Your task to perform on an android device: open device folders in google photos Image 0: 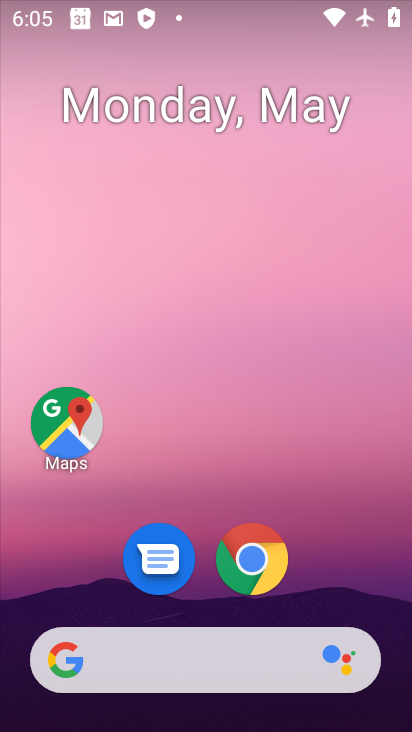
Step 0: drag from (314, 534) to (268, 144)
Your task to perform on an android device: open device folders in google photos Image 1: 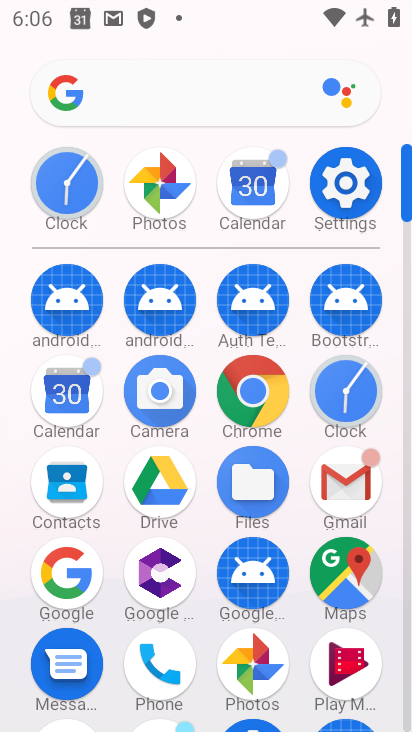
Step 1: click (161, 179)
Your task to perform on an android device: open device folders in google photos Image 2: 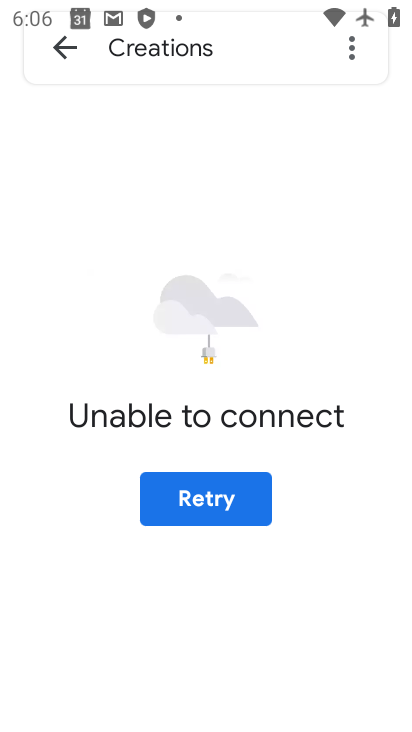
Step 2: click (61, 50)
Your task to perform on an android device: open device folders in google photos Image 3: 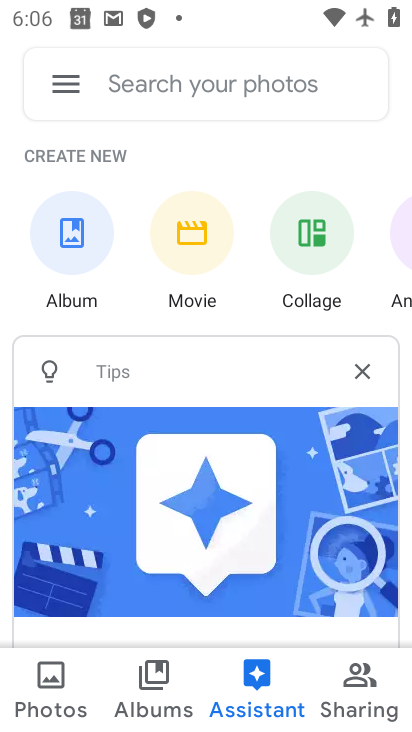
Step 3: click (74, 70)
Your task to perform on an android device: open device folders in google photos Image 4: 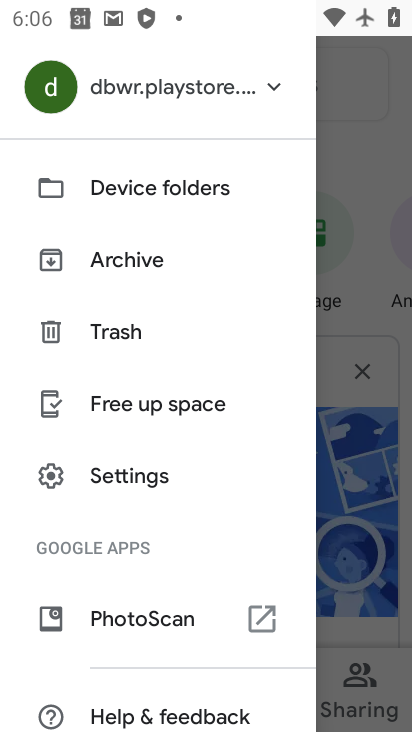
Step 4: click (161, 183)
Your task to perform on an android device: open device folders in google photos Image 5: 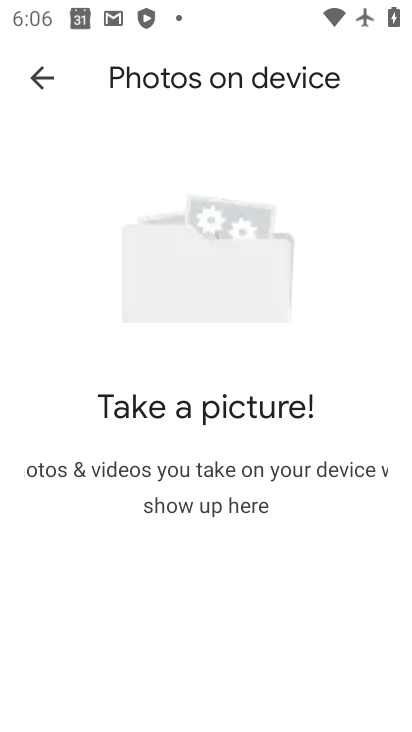
Step 5: task complete